Your task to perform on an android device: delete location history Image 0: 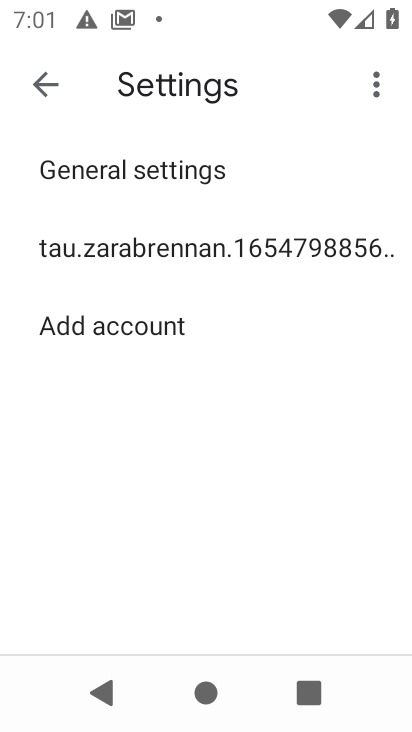
Step 0: task complete